Your task to perform on an android device: all mails in gmail Image 0: 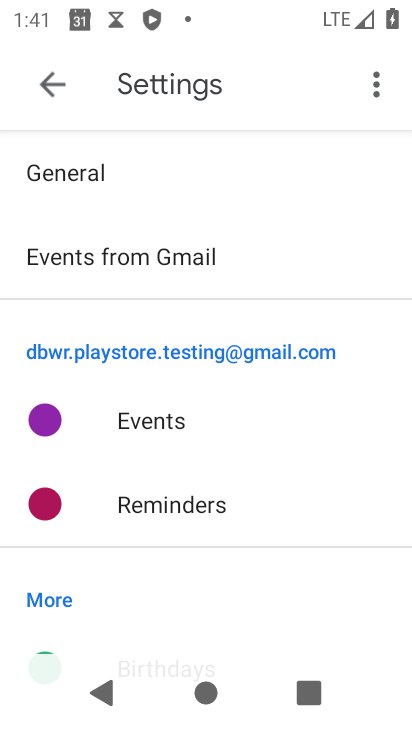
Step 0: press back button
Your task to perform on an android device: all mails in gmail Image 1: 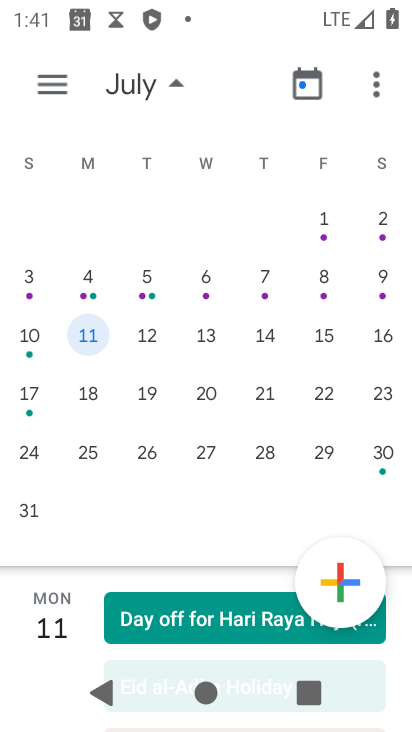
Step 1: press back button
Your task to perform on an android device: all mails in gmail Image 2: 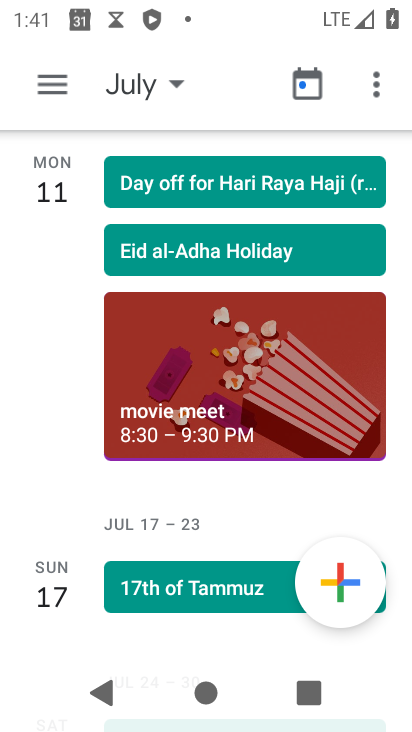
Step 2: press back button
Your task to perform on an android device: all mails in gmail Image 3: 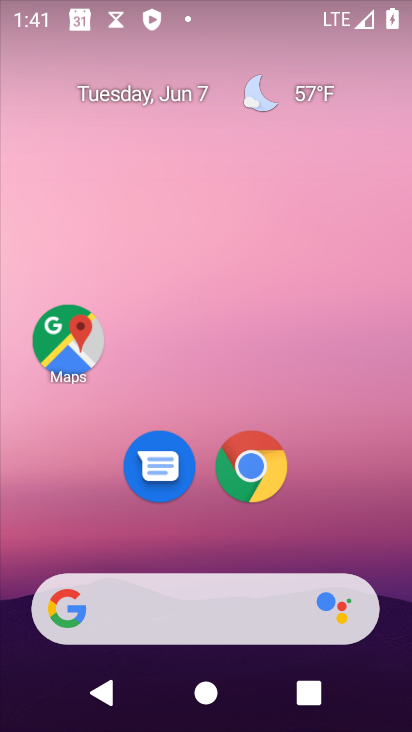
Step 3: drag from (219, 504) to (282, 22)
Your task to perform on an android device: all mails in gmail Image 4: 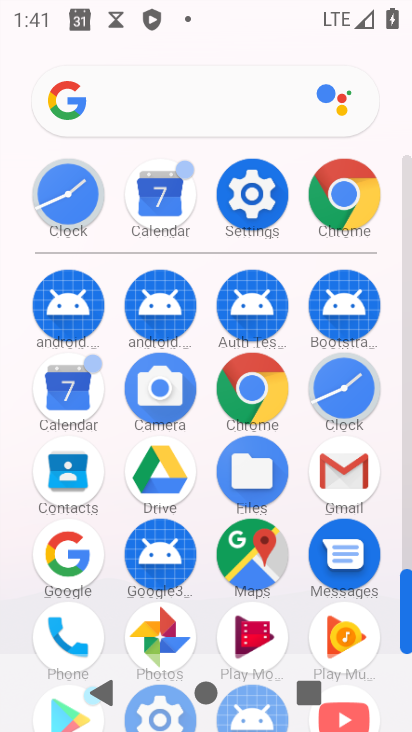
Step 4: click (347, 478)
Your task to perform on an android device: all mails in gmail Image 5: 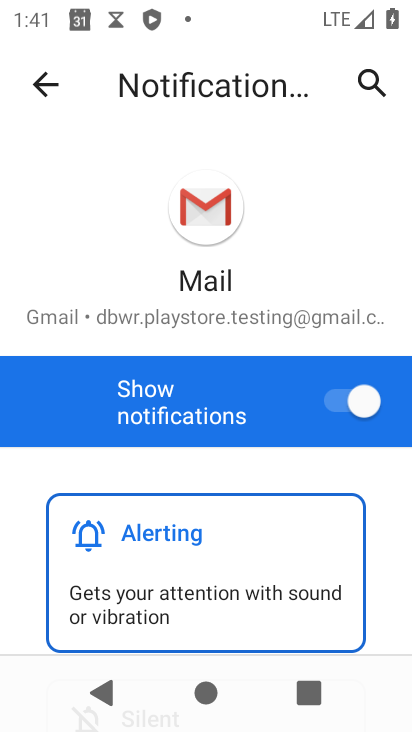
Step 5: click (45, 70)
Your task to perform on an android device: all mails in gmail Image 6: 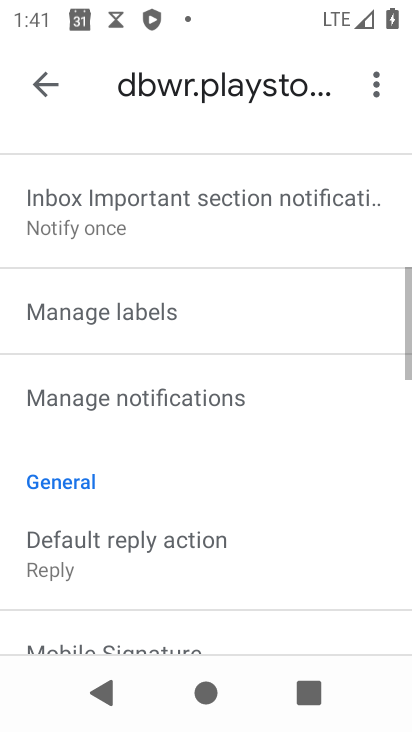
Step 6: click (59, 71)
Your task to perform on an android device: all mails in gmail Image 7: 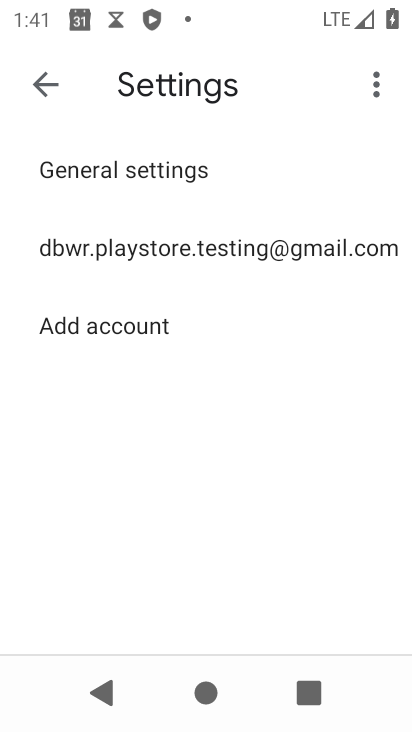
Step 7: click (48, 75)
Your task to perform on an android device: all mails in gmail Image 8: 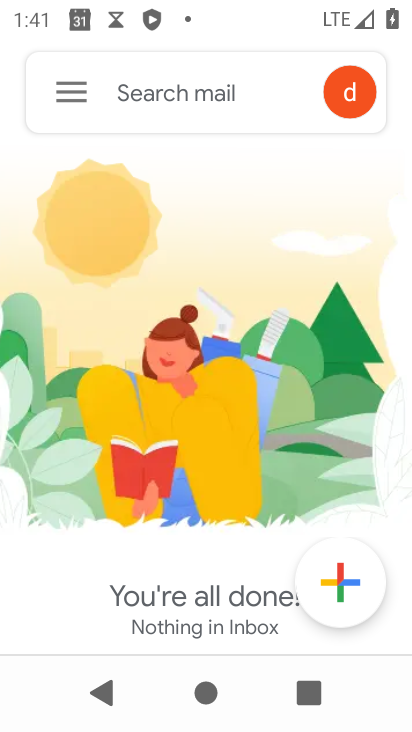
Step 8: click (63, 84)
Your task to perform on an android device: all mails in gmail Image 9: 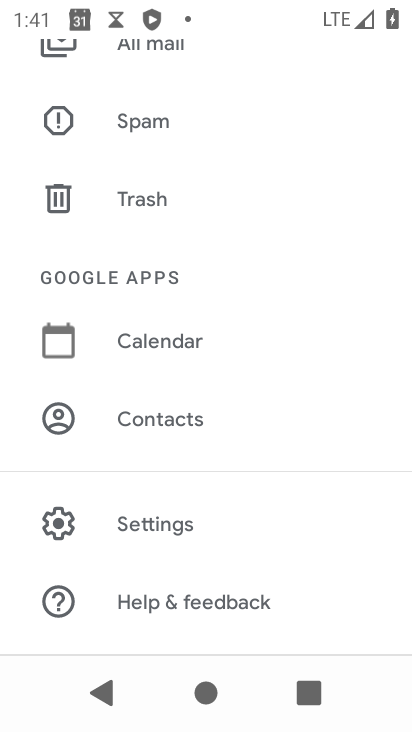
Step 9: click (135, 56)
Your task to perform on an android device: all mails in gmail Image 10: 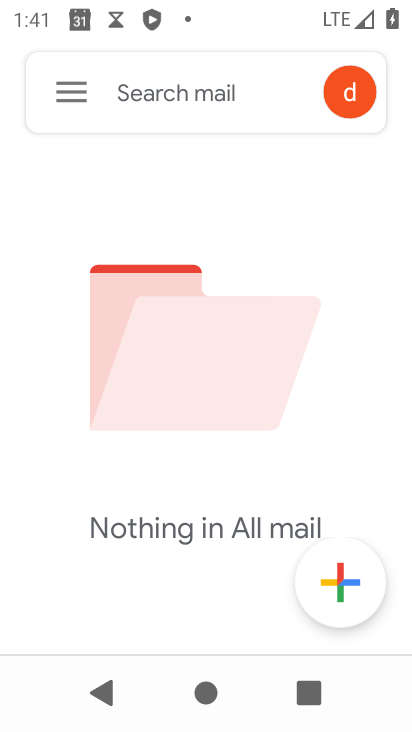
Step 10: task complete